Your task to perform on an android device: turn on the 12-hour format for clock Image 0: 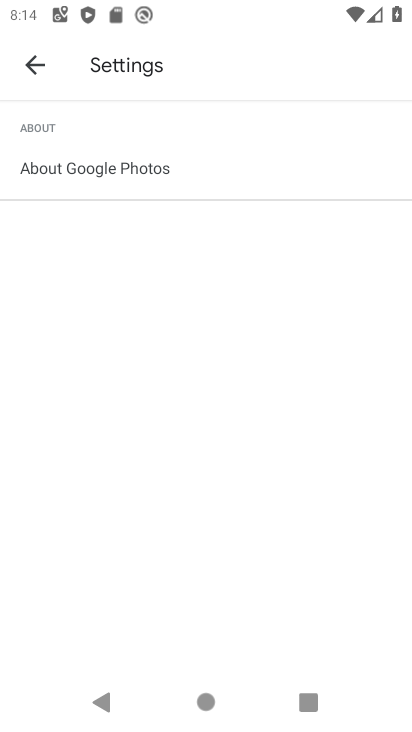
Step 0: press home button
Your task to perform on an android device: turn on the 12-hour format for clock Image 1: 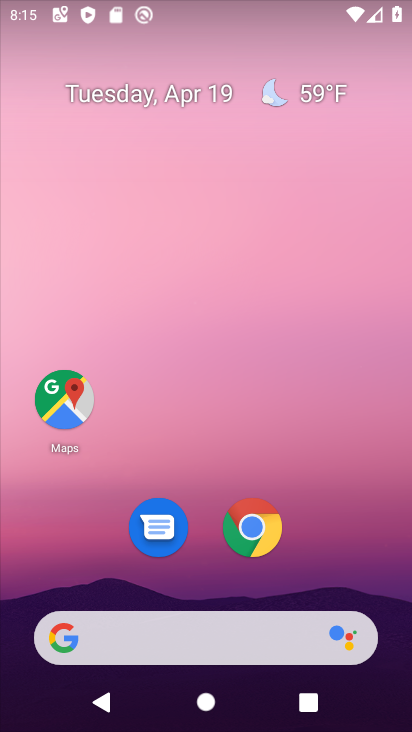
Step 1: drag from (195, 584) to (207, 217)
Your task to perform on an android device: turn on the 12-hour format for clock Image 2: 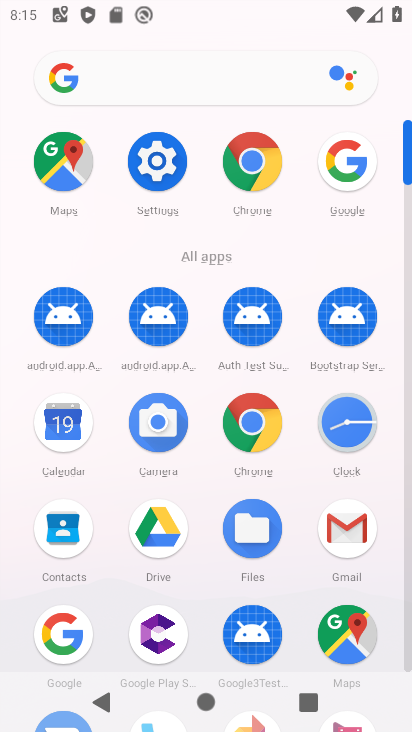
Step 2: click (325, 424)
Your task to perform on an android device: turn on the 12-hour format for clock Image 3: 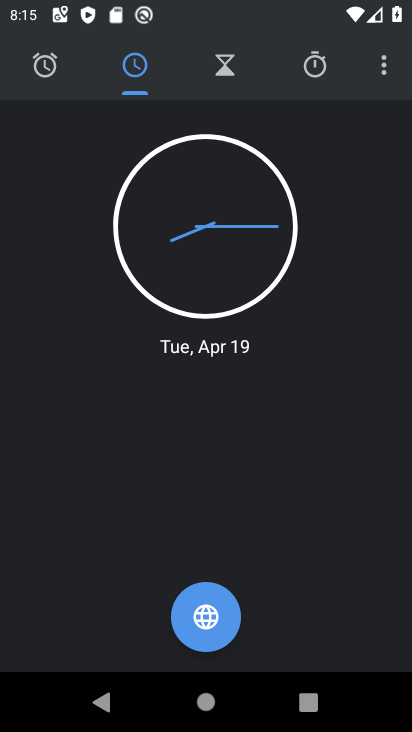
Step 3: click (384, 72)
Your task to perform on an android device: turn on the 12-hour format for clock Image 4: 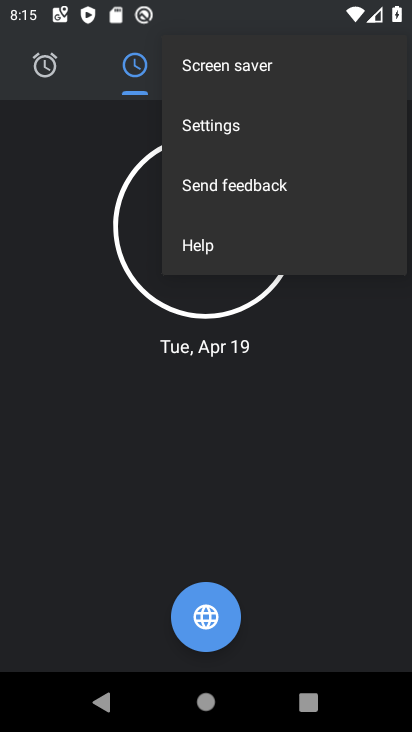
Step 4: click (178, 133)
Your task to perform on an android device: turn on the 12-hour format for clock Image 5: 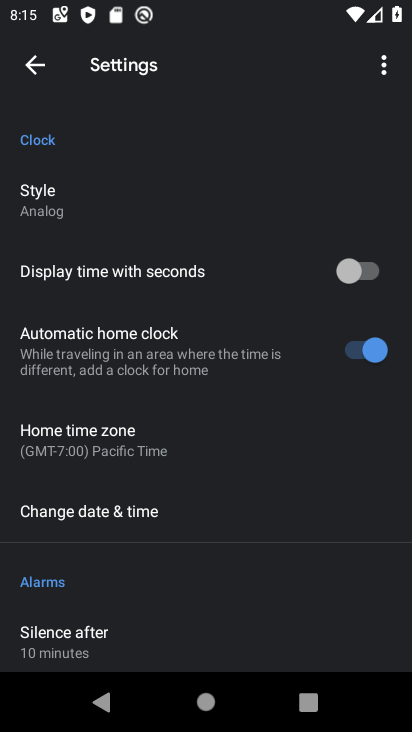
Step 5: drag from (181, 587) to (213, 450)
Your task to perform on an android device: turn on the 12-hour format for clock Image 6: 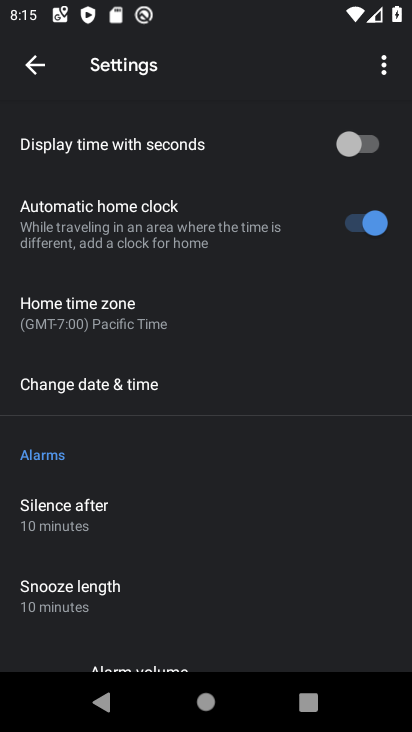
Step 6: click (138, 383)
Your task to perform on an android device: turn on the 12-hour format for clock Image 7: 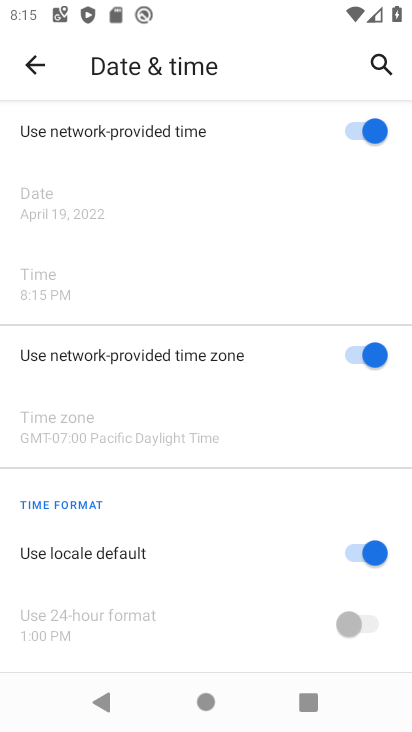
Step 7: drag from (219, 597) to (238, 302)
Your task to perform on an android device: turn on the 12-hour format for clock Image 8: 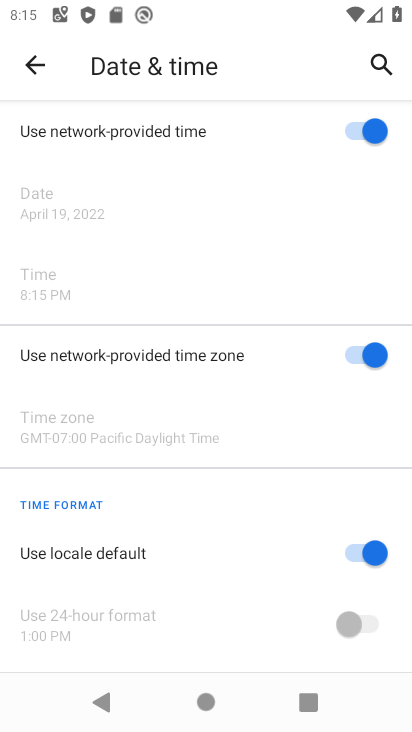
Step 8: click (344, 543)
Your task to perform on an android device: turn on the 12-hour format for clock Image 9: 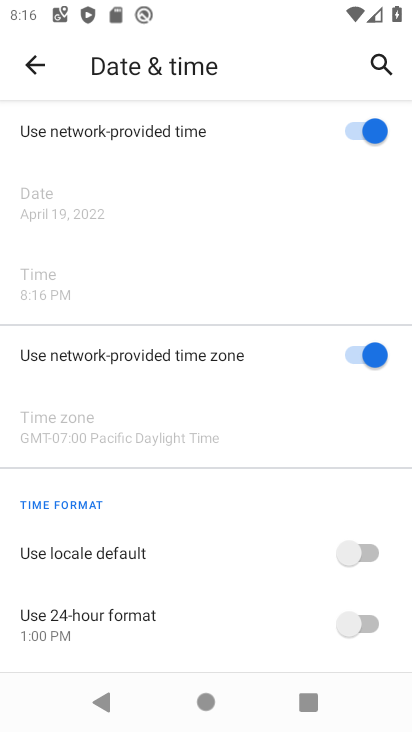
Step 9: click (371, 552)
Your task to perform on an android device: turn on the 12-hour format for clock Image 10: 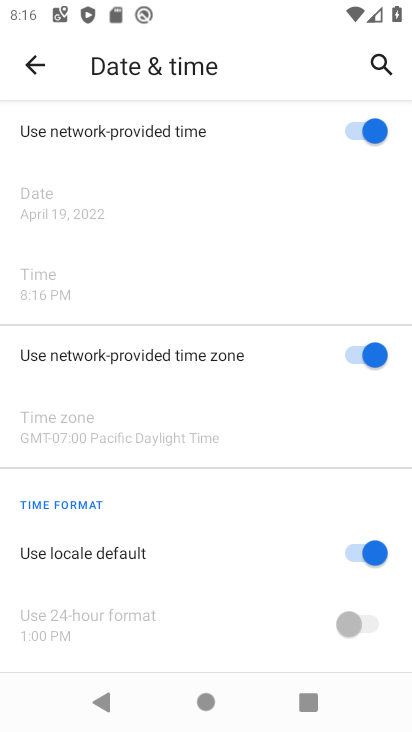
Step 10: task complete